Your task to perform on an android device: toggle location history Image 0: 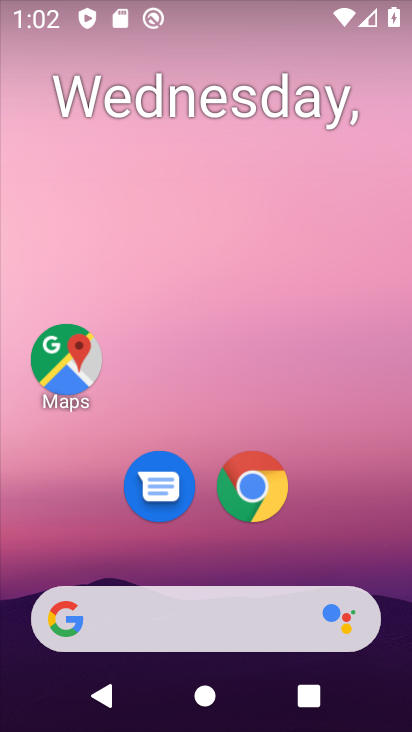
Step 0: drag from (226, 627) to (295, 61)
Your task to perform on an android device: toggle location history Image 1: 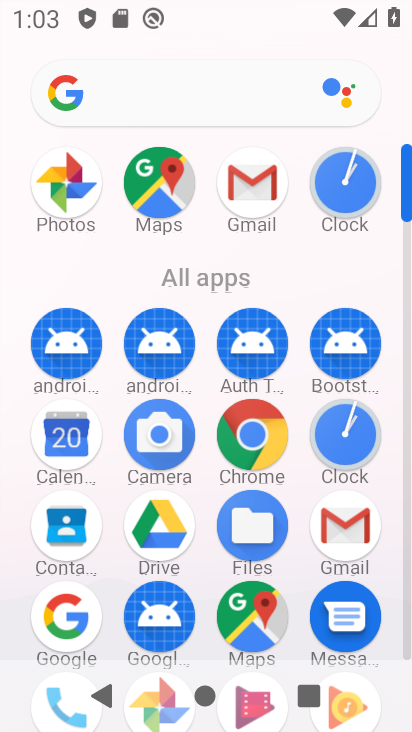
Step 1: drag from (197, 487) to (295, 209)
Your task to perform on an android device: toggle location history Image 2: 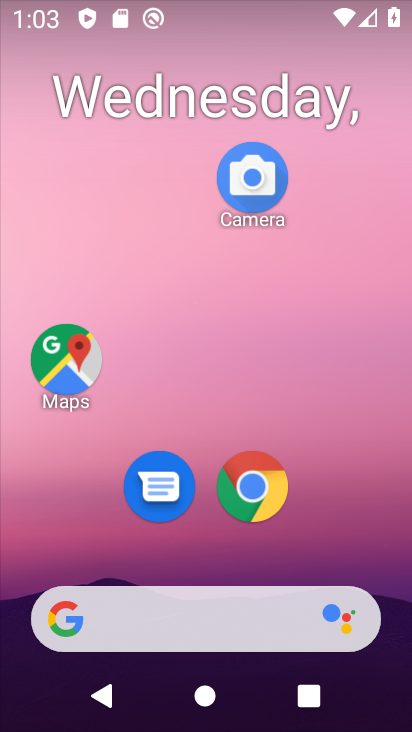
Step 2: drag from (261, 190) to (211, 0)
Your task to perform on an android device: toggle location history Image 3: 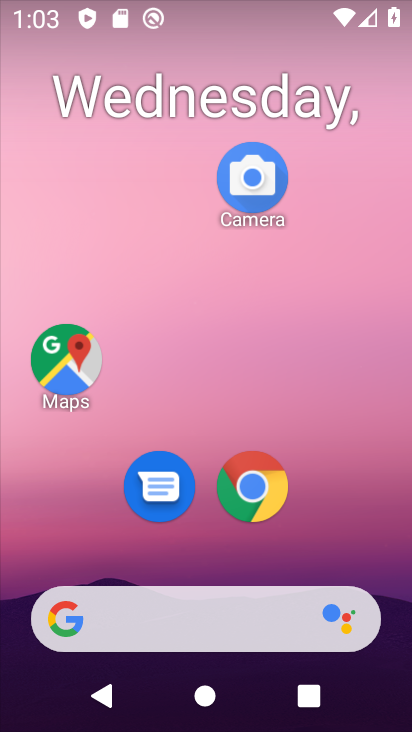
Step 3: drag from (256, 666) to (357, 90)
Your task to perform on an android device: toggle location history Image 4: 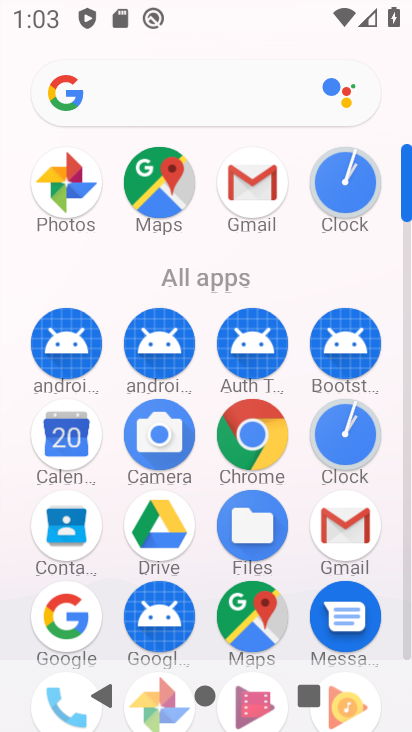
Step 4: drag from (202, 475) to (214, 267)
Your task to perform on an android device: toggle location history Image 5: 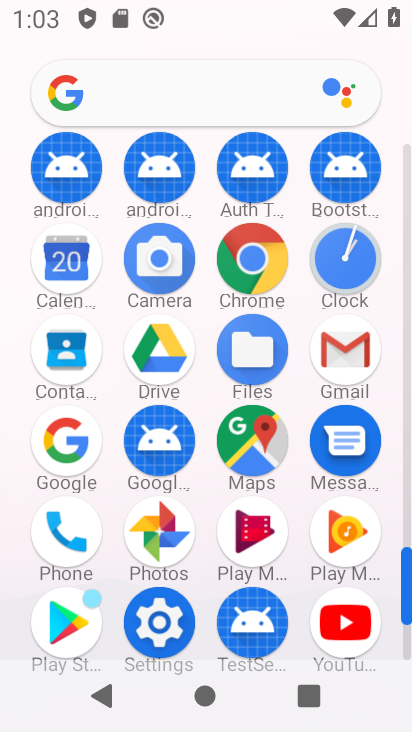
Step 5: click (174, 597)
Your task to perform on an android device: toggle location history Image 6: 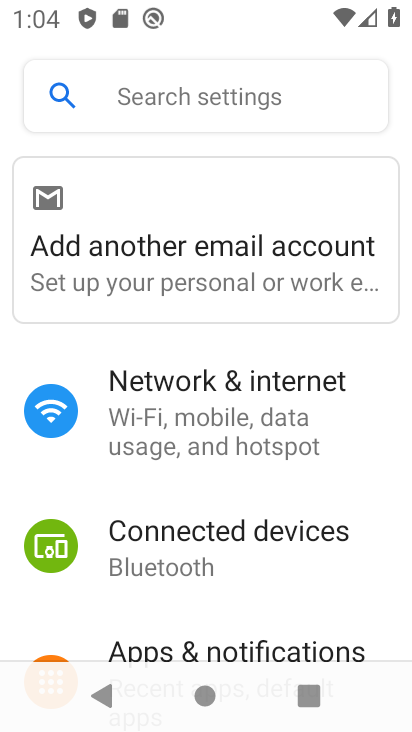
Step 6: click (173, 101)
Your task to perform on an android device: toggle location history Image 7: 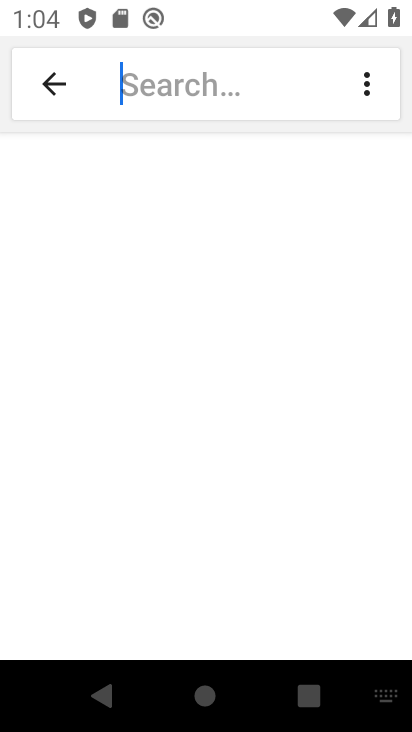
Step 7: click (386, 689)
Your task to perform on an android device: toggle location history Image 8: 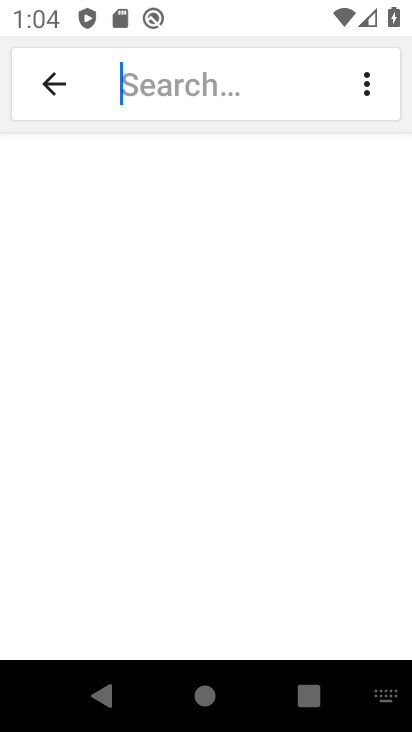
Step 8: click (393, 694)
Your task to perform on an android device: toggle location history Image 9: 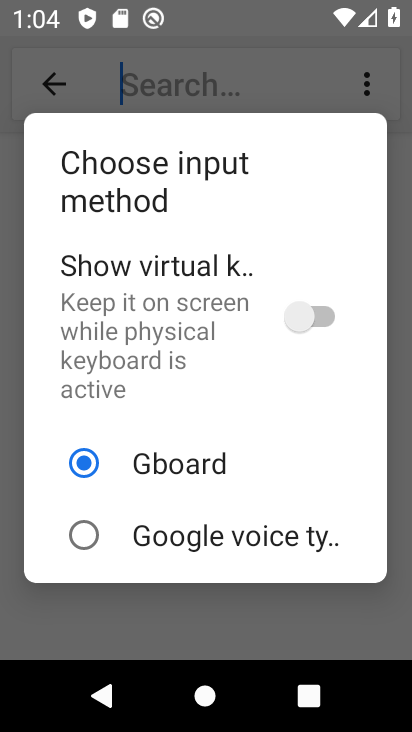
Step 9: drag from (392, 692) to (313, 320)
Your task to perform on an android device: toggle location history Image 10: 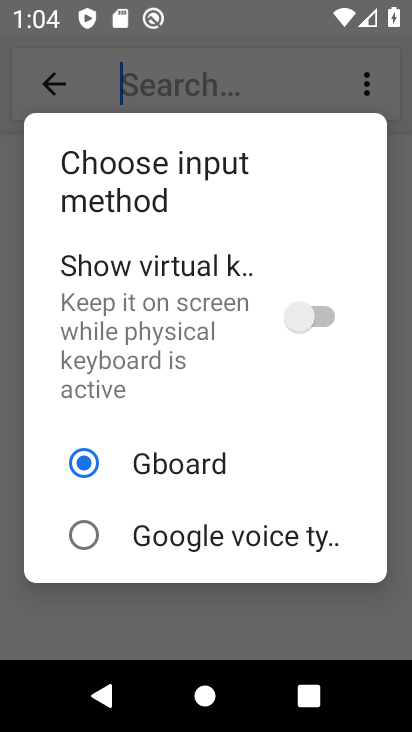
Step 10: click (313, 320)
Your task to perform on an android device: toggle location history Image 11: 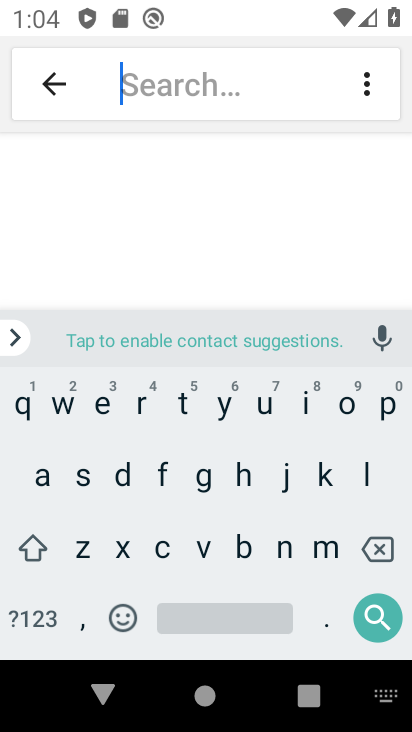
Step 11: click (366, 478)
Your task to perform on an android device: toggle location history Image 12: 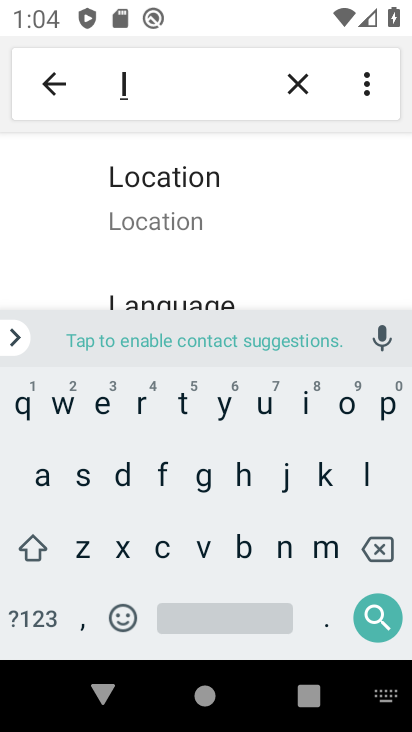
Step 12: click (165, 229)
Your task to perform on an android device: toggle location history Image 13: 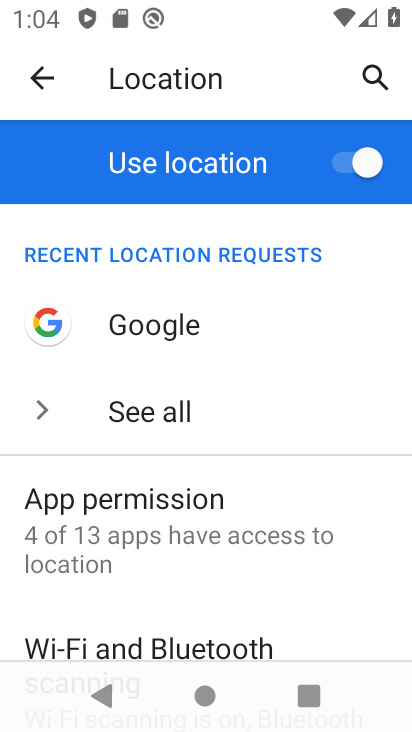
Step 13: drag from (211, 445) to (228, 183)
Your task to perform on an android device: toggle location history Image 14: 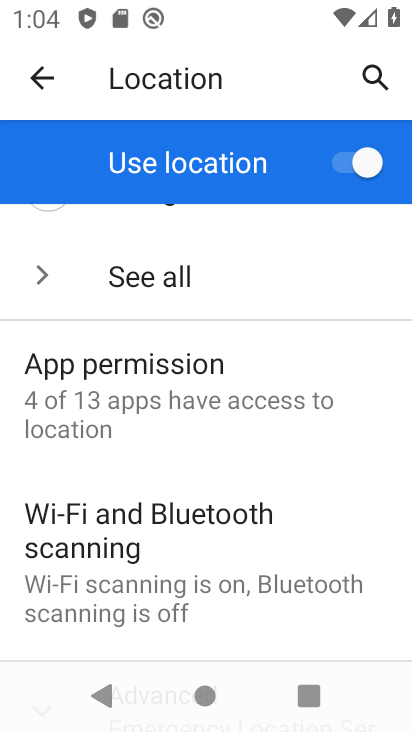
Step 14: drag from (206, 541) to (225, 238)
Your task to perform on an android device: toggle location history Image 15: 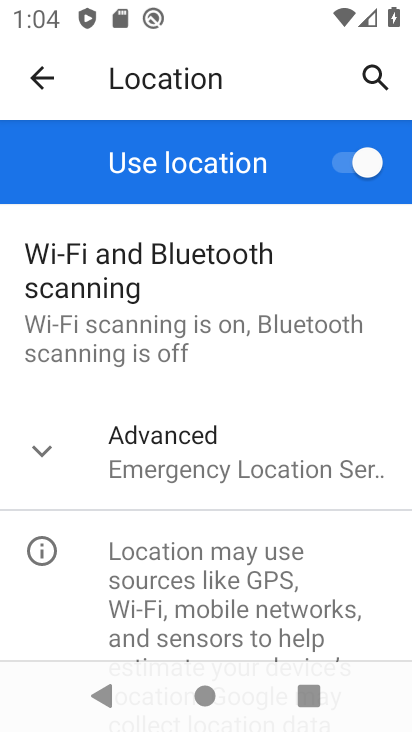
Step 15: click (67, 463)
Your task to perform on an android device: toggle location history Image 16: 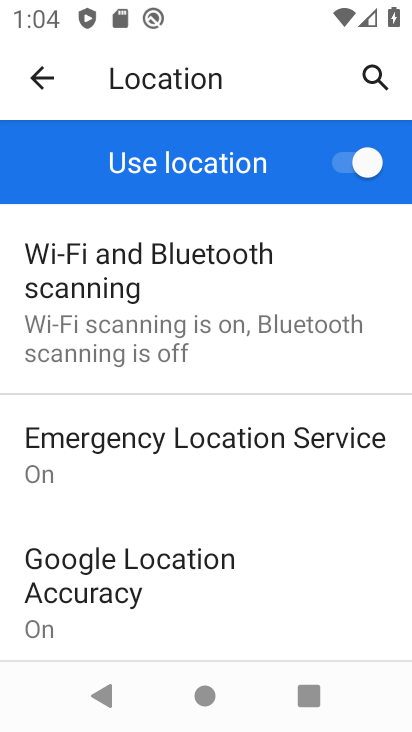
Step 16: drag from (227, 587) to (242, 392)
Your task to perform on an android device: toggle location history Image 17: 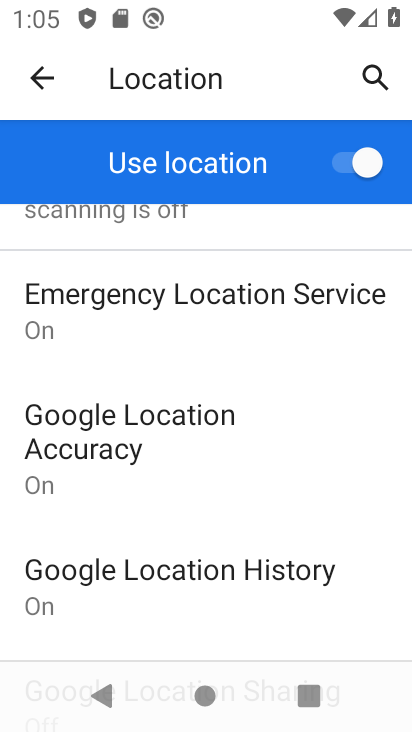
Step 17: drag from (207, 490) to (289, 286)
Your task to perform on an android device: toggle location history Image 18: 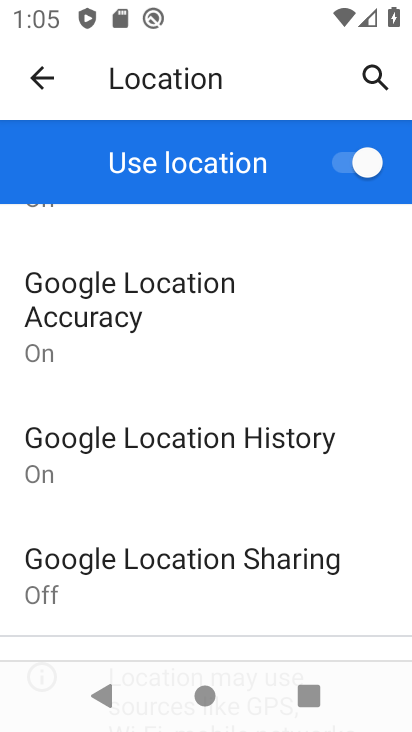
Step 18: click (179, 441)
Your task to perform on an android device: toggle location history Image 19: 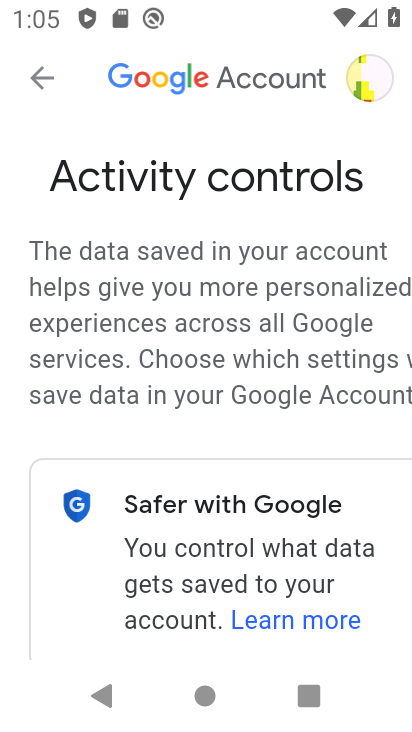
Step 19: task complete